Your task to perform on an android device: Add "beats solo 3" to the cart on costco Image 0: 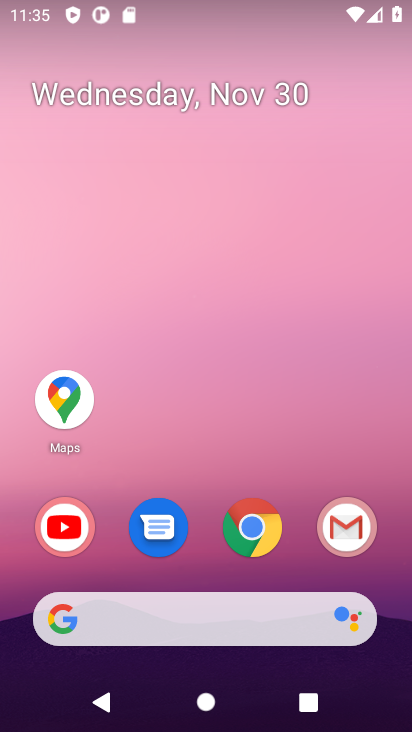
Step 0: click (249, 539)
Your task to perform on an android device: Add "beats solo 3" to the cart on costco Image 1: 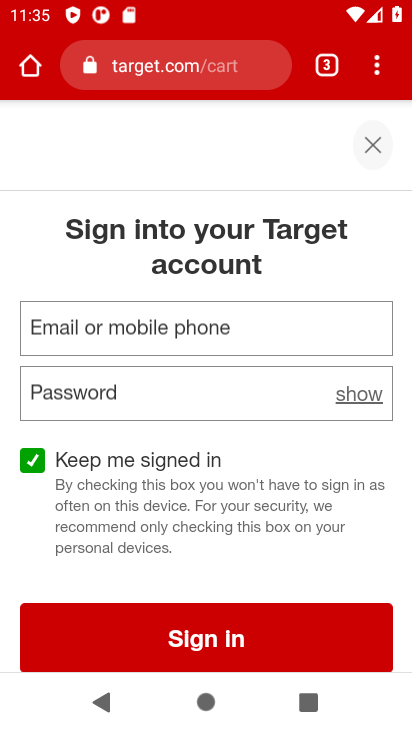
Step 1: click (187, 58)
Your task to perform on an android device: Add "beats solo 3" to the cart on costco Image 2: 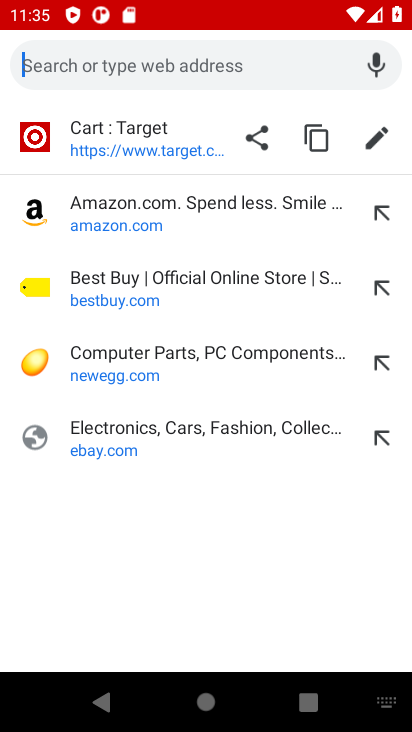
Step 2: type "costco.com"
Your task to perform on an android device: Add "beats solo 3" to the cart on costco Image 3: 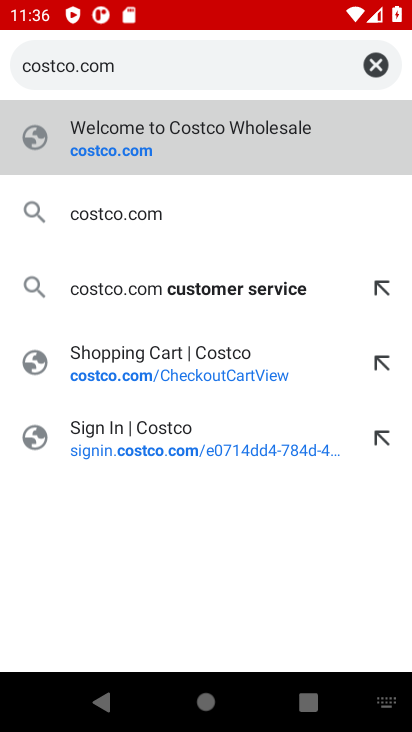
Step 3: click (79, 152)
Your task to perform on an android device: Add "beats solo 3" to the cart on costco Image 4: 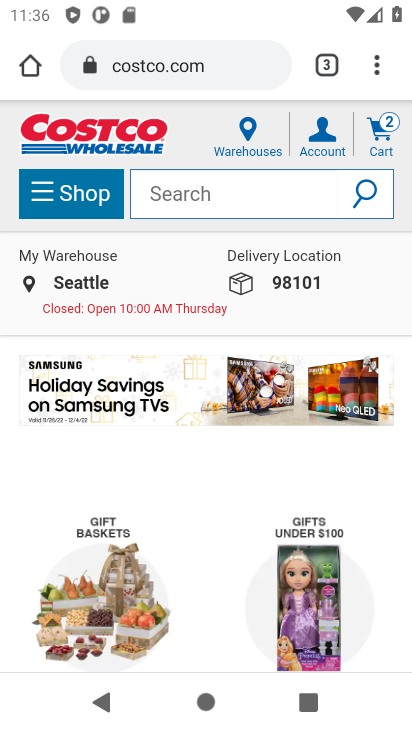
Step 4: click (184, 186)
Your task to perform on an android device: Add "beats solo 3" to the cart on costco Image 5: 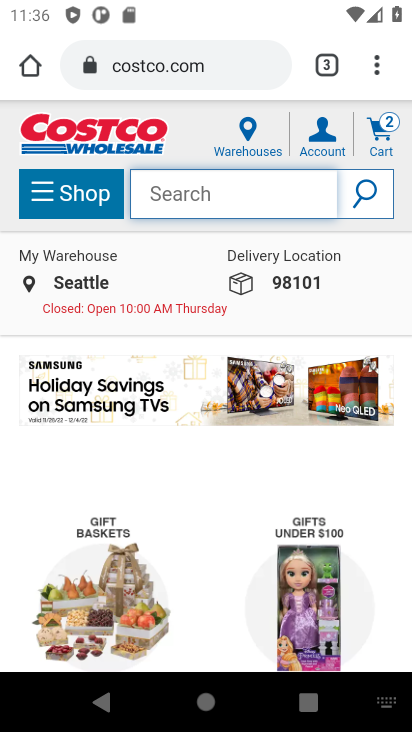
Step 5: type "beats solo 3"
Your task to perform on an android device: Add "beats solo 3" to the cart on costco Image 6: 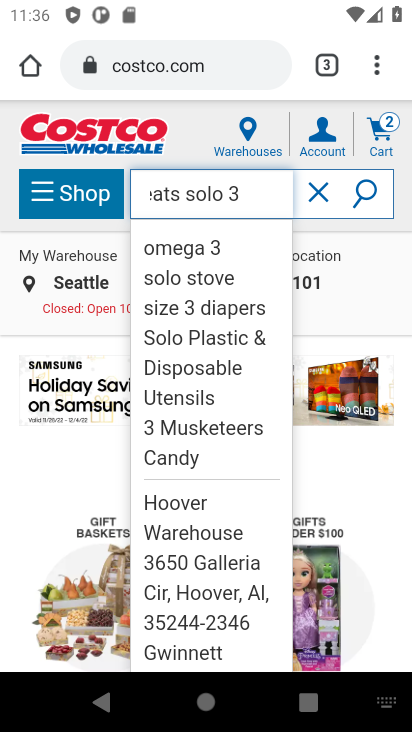
Step 6: click (374, 193)
Your task to perform on an android device: Add "beats solo 3" to the cart on costco Image 7: 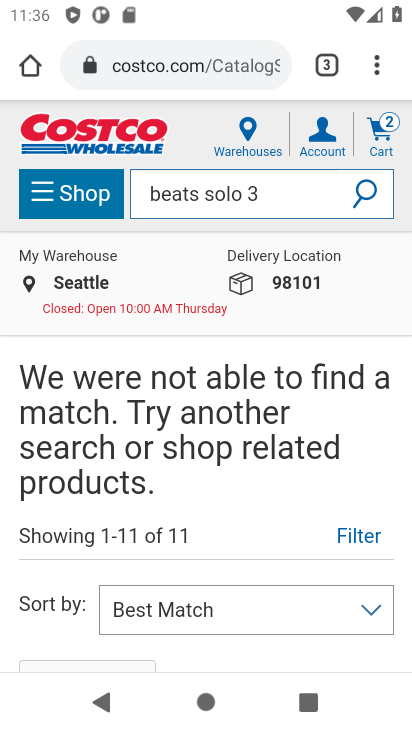
Step 7: task complete